Your task to perform on an android device: Find coffee shops on Maps Image 0: 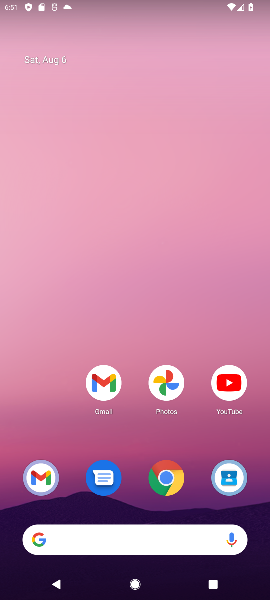
Step 0: press home button
Your task to perform on an android device: Find coffee shops on Maps Image 1: 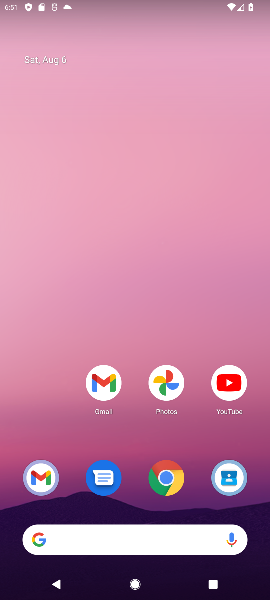
Step 1: drag from (55, 427) to (64, 27)
Your task to perform on an android device: Find coffee shops on Maps Image 2: 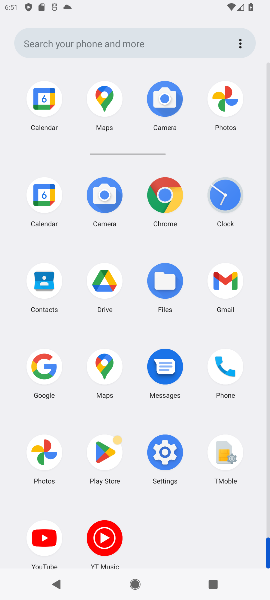
Step 2: click (93, 368)
Your task to perform on an android device: Find coffee shops on Maps Image 3: 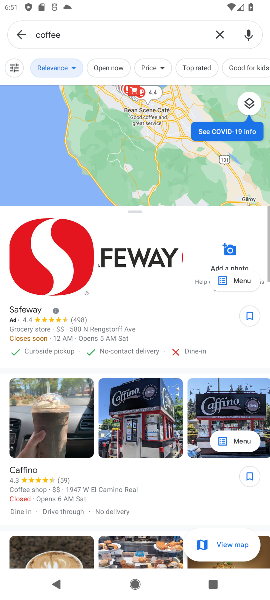
Step 3: click (222, 36)
Your task to perform on an android device: Find coffee shops on Maps Image 4: 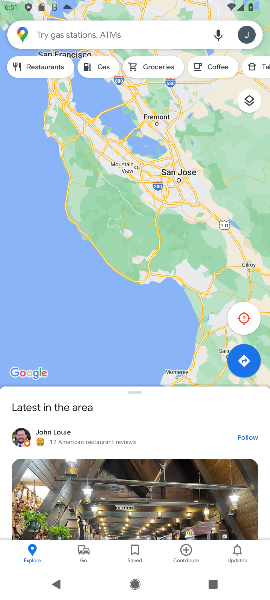
Step 4: click (102, 36)
Your task to perform on an android device: Find coffee shops on Maps Image 5: 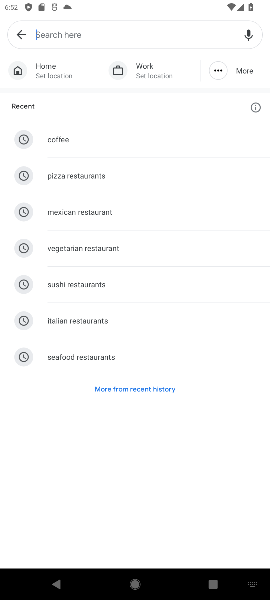
Step 5: type "coffee shops"
Your task to perform on an android device: Find coffee shops on Maps Image 6: 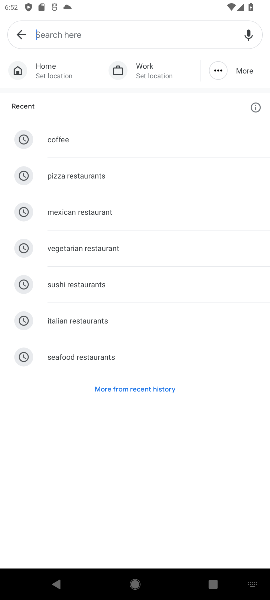
Step 6: click (108, 39)
Your task to perform on an android device: Find coffee shops on Maps Image 7: 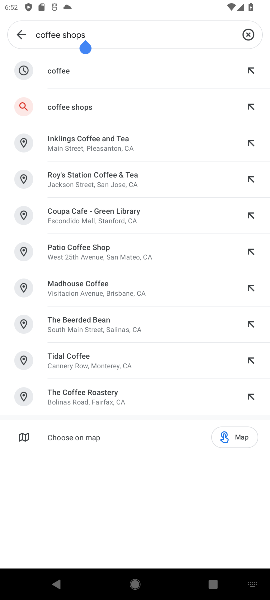
Step 7: press enter
Your task to perform on an android device: Find coffee shops on Maps Image 8: 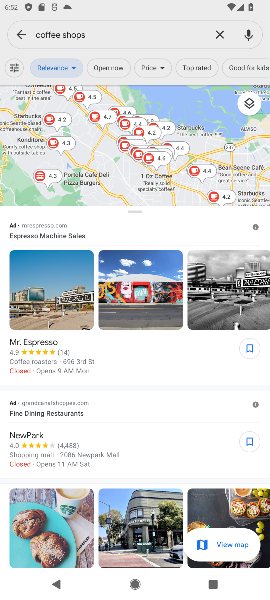
Step 8: task complete